Your task to perform on an android device: Search for pizza restaurants on Maps Image 0: 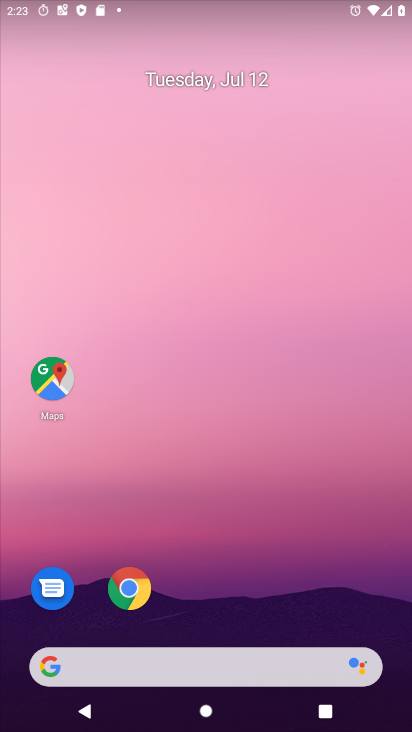
Step 0: click (226, 100)
Your task to perform on an android device: Search for pizza restaurants on Maps Image 1: 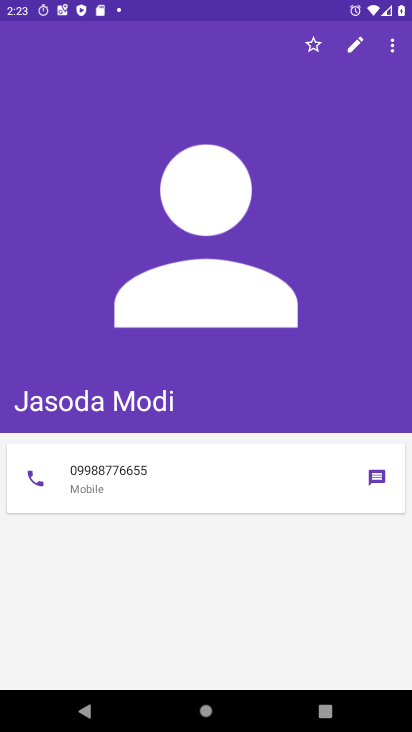
Step 1: press home button
Your task to perform on an android device: Search for pizza restaurants on Maps Image 2: 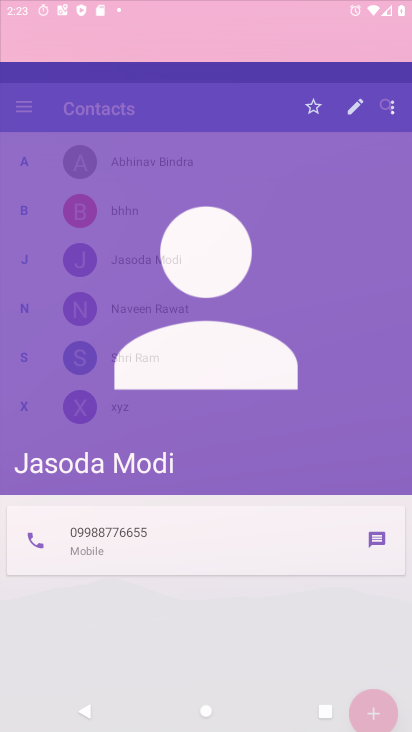
Step 2: drag from (172, 587) to (234, 157)
Your task to perform on an android device: Search for pizza restaurants on Maps Image 3: 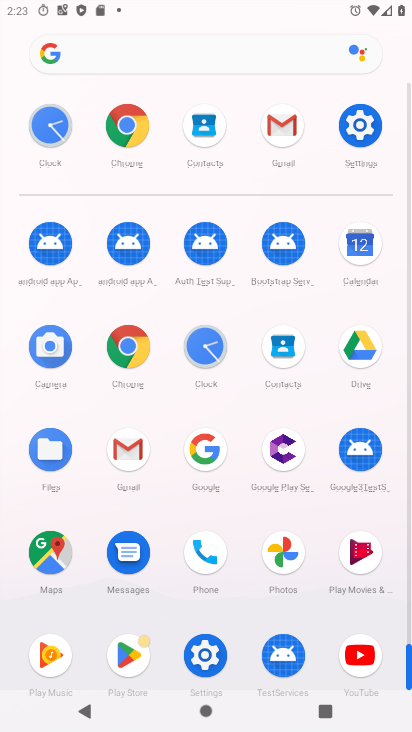
Step 3: click (46, 548)
Your task to perform on an android device: Search for pizza restaurants on Maps Image 4: 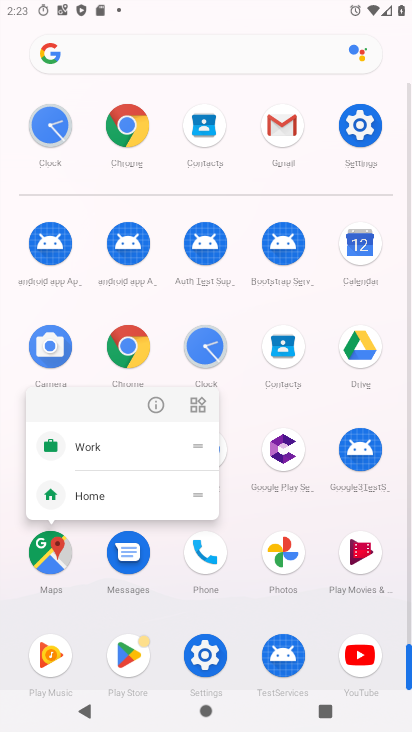
Step 4: click (175, 392)
Your task to perform on an android device: Search for pizza restaurants on Maps Image 5: 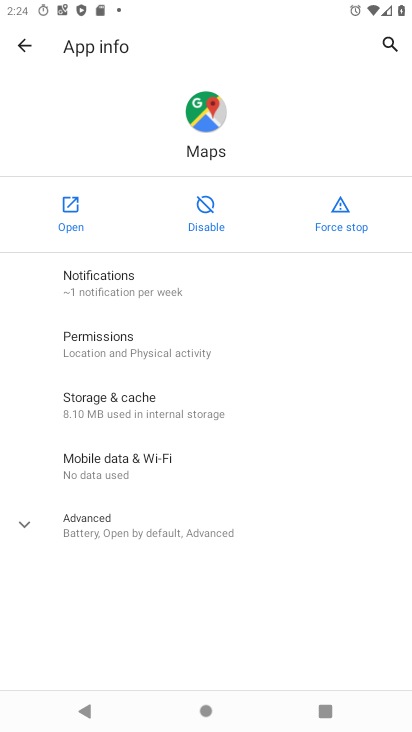
Step 5: click (86, 235)
Your task to perform on an android device: Search for pizza restaurants on Maps Image 6: 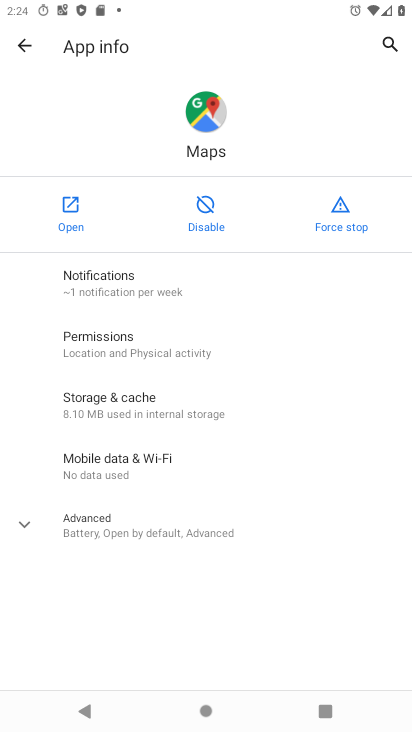
Step 6: click (86, 235)
Your task to perform on an android device: Search for pizza restaurants on Maps Image 7: 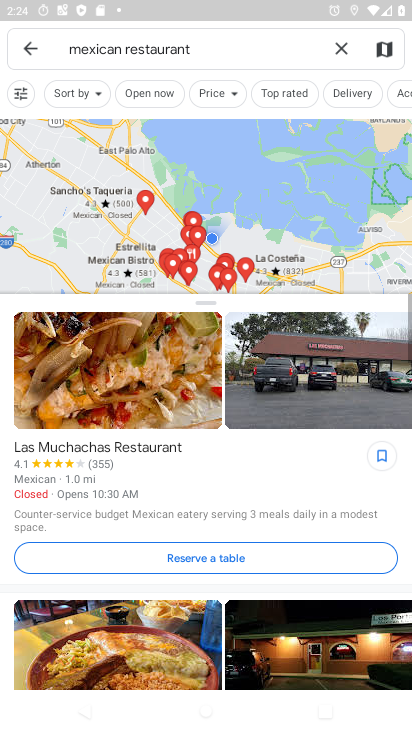
Step 7: click (337, 44)
Your task to perform on an android device: Search for pizza restaurants on Maps Image 8: 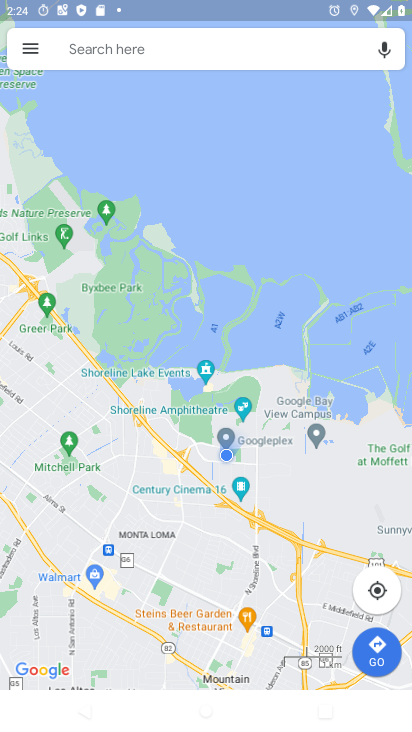
Step 8: click (201, 58)
Your task to perform on an android device: Search for pizza restaurants on Maps Image 9: 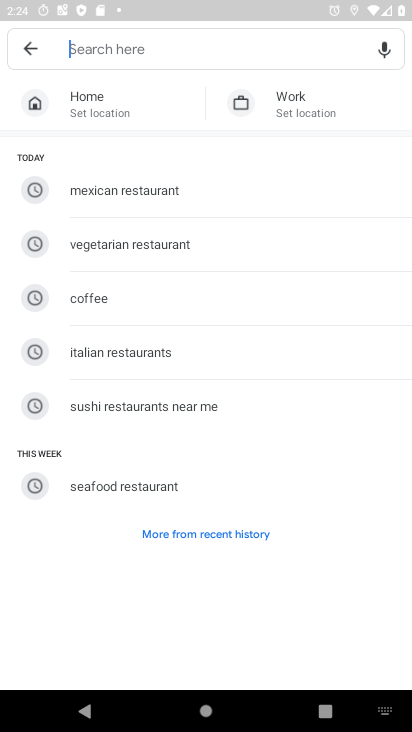
Step 9: type "pizza restaurants"
Your task to perform on an android device: Search for pizza restaurants on Maps Image 10: 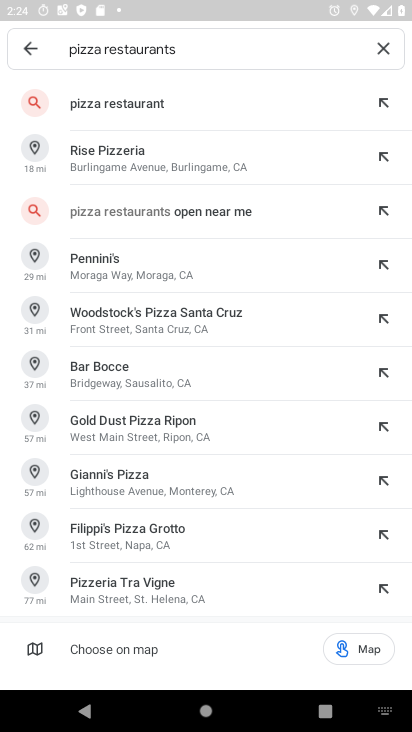
Step 10: click (173, 99)
Your task to perform on an android device: Search for pizza restaurants on Maps Image 11: 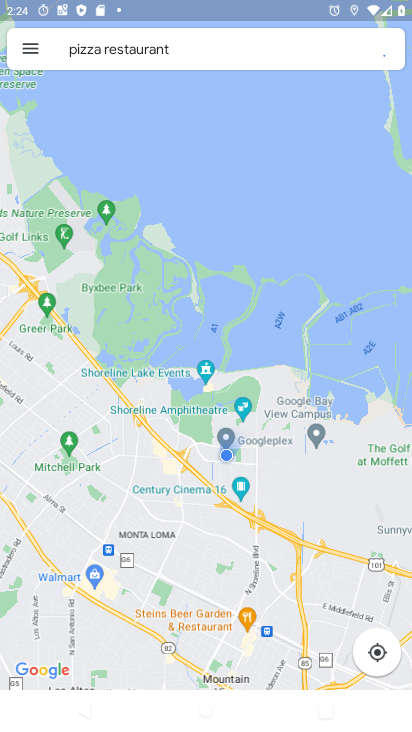
Step 11: task complete